Your task to perform on an android device: change notification settings in the gmail app Image 0: 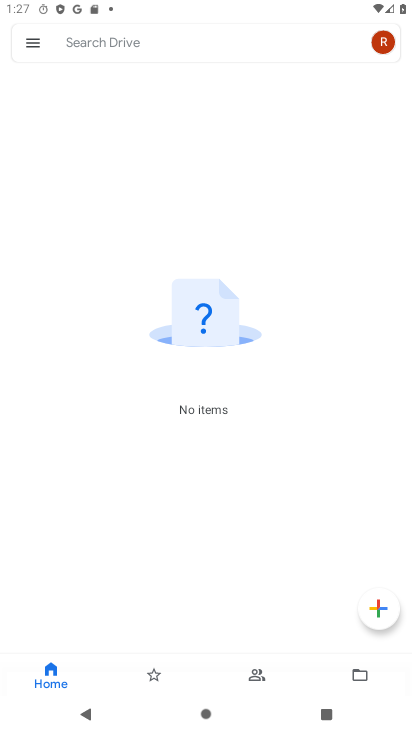
Step 0: press home button
Your task to perform on an android device: change notification settings in the gmail app Image 1: 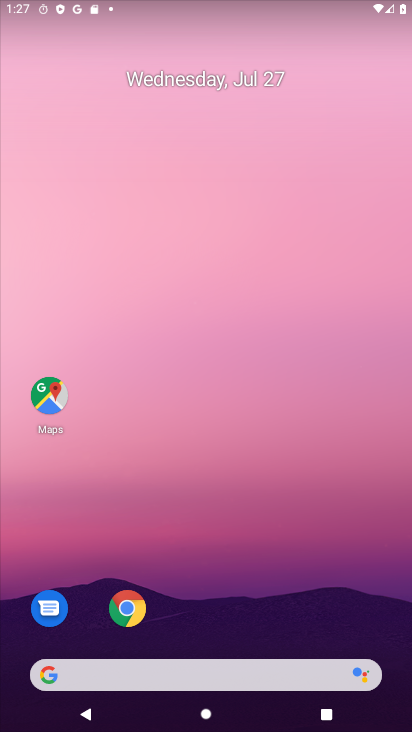
Step 1: drag from (187, 523) to (187, 133)
Your task to perform on an android device: change notification settings in the gmail app Image 2: 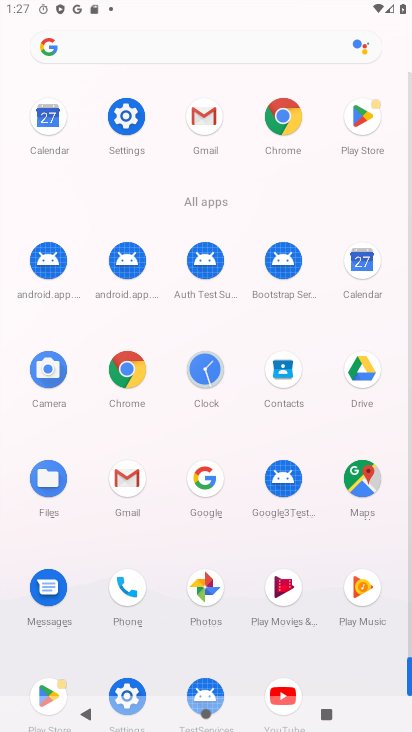
Step 2: click (126, 492)
Your task to perform on an android device: change notification settings in the gmail app Image 3: 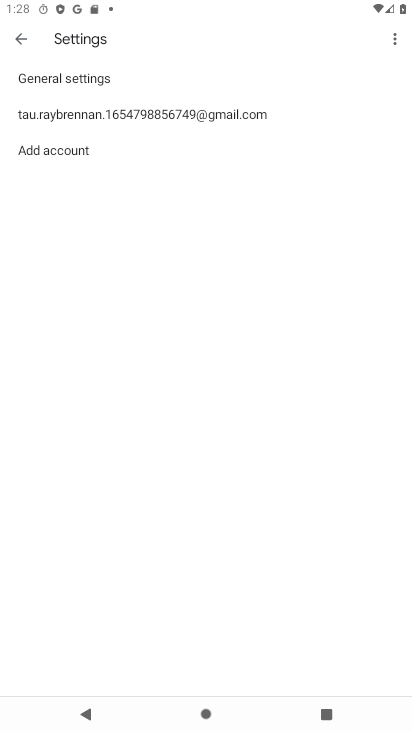
Step 3: click (47, 117)
Your task to perform on an android device: change notification settings in the gmail app Image 4: 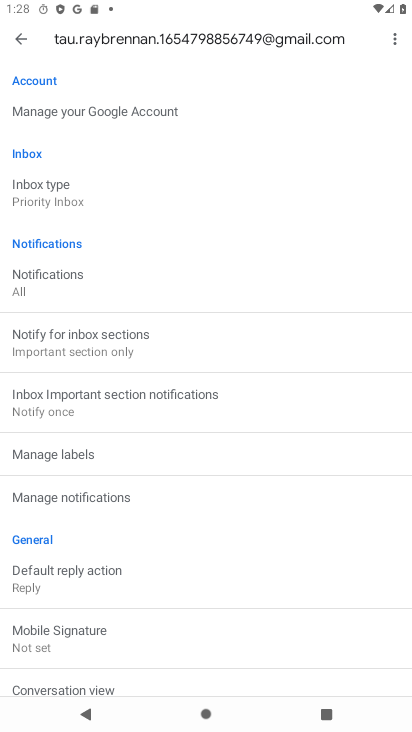
Step 4: click (65, 494)
Your task to perform on an android device: change notification settings in the gmail app Image 5: 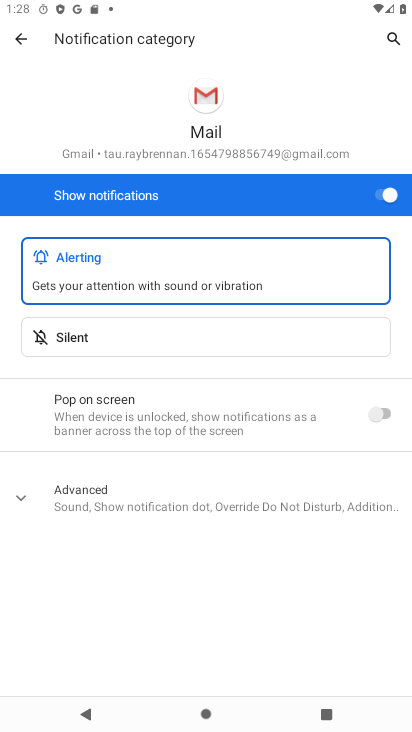
Step 5: click (385, 183)
Your task to perform on an android device: change notification settings in the gmail app Image 6: 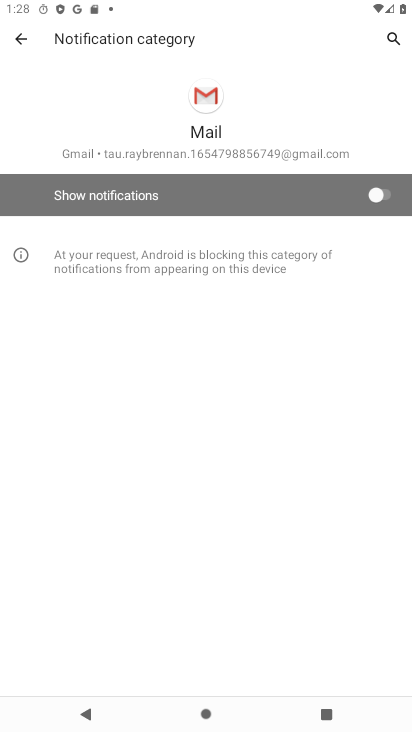
Step 6: task complete